Your task to perform on an android device: Toggle the flashlight Image 0: 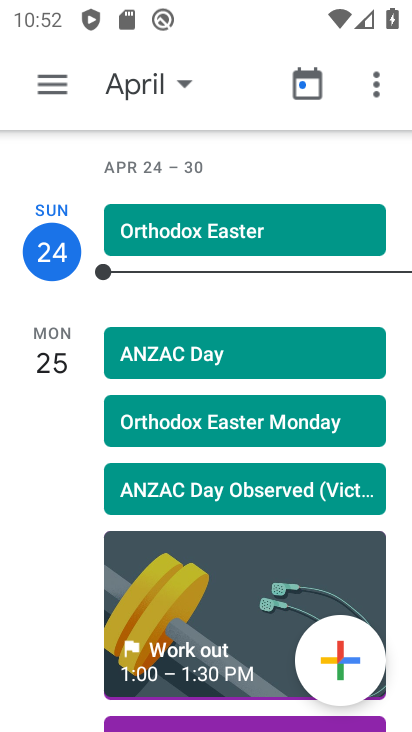
Step 0: press home button
Your task to perform on an android device: Toggle the flashlight Image 1: 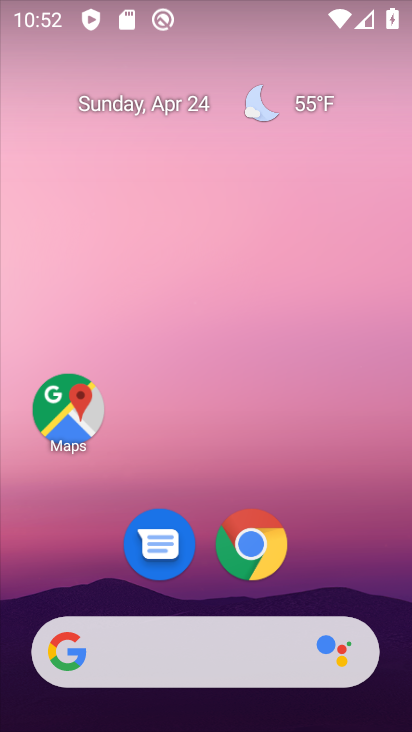
Step 1: drag from (330, 450) to (322, 126)
Your task to perform on an android device: Toggle the flashlight Image 2: 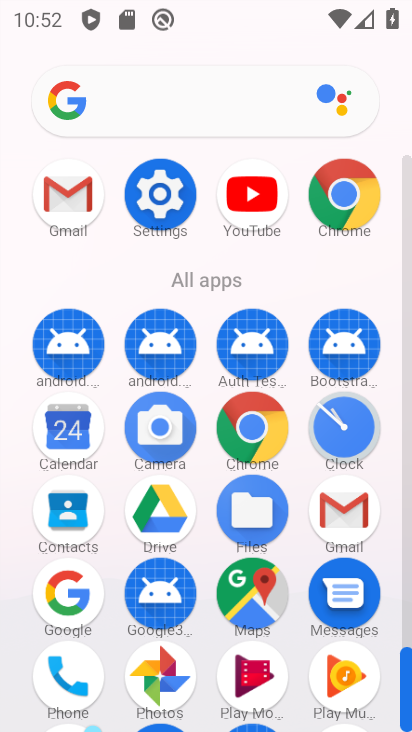
Step 2: click (182, 171)
Your task to perform on an android device: Toggle the flashlight Image 3: 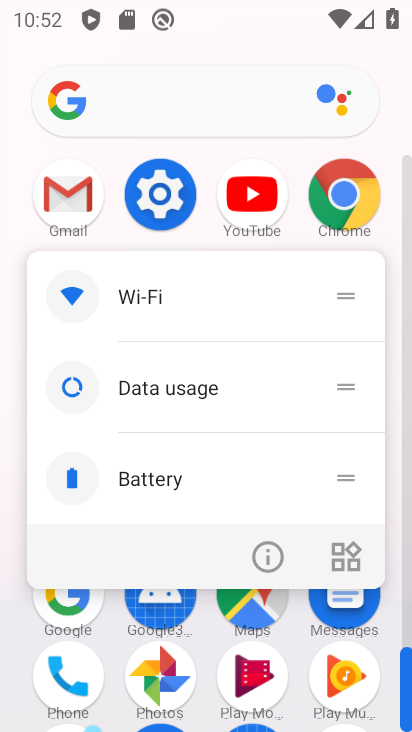
Step 3: click (165, 185)
Your task to perform on an android device: Toggle the flashlight Image 4: 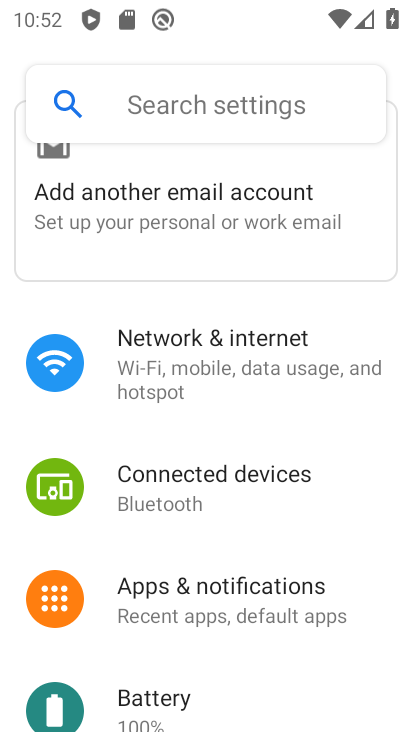
Step 4: click (227, 94)
Your task to perform on an android device: Toggle the flashlight Image 5: 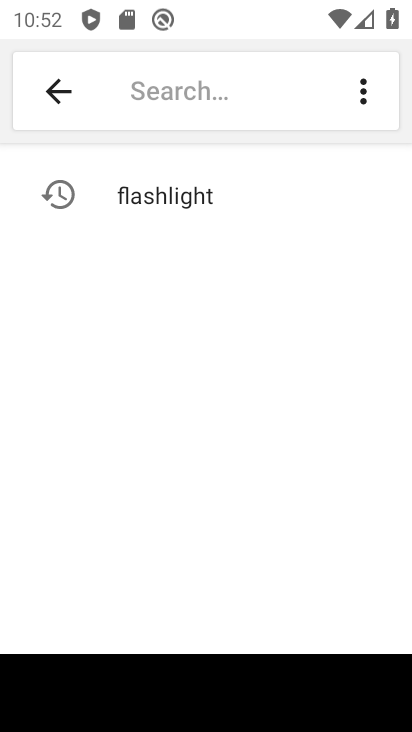
Step 5: click (158, 190)
Your task to perform on an android device: Toggle the flashlight Image 6: 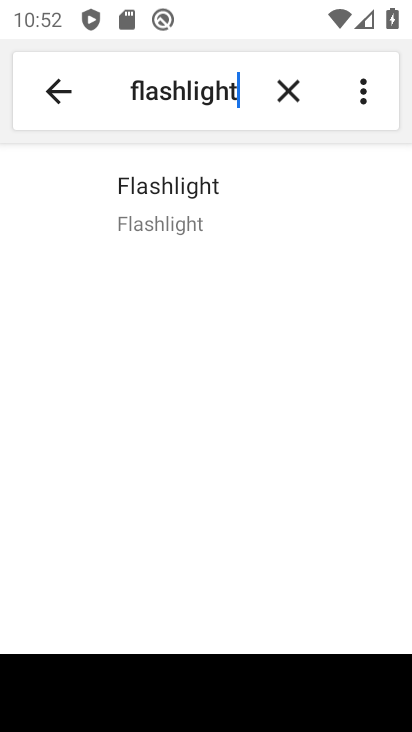
Step 6: task complete